Your task to perform on an android device: uninstall "The Home Depot" Image 0: 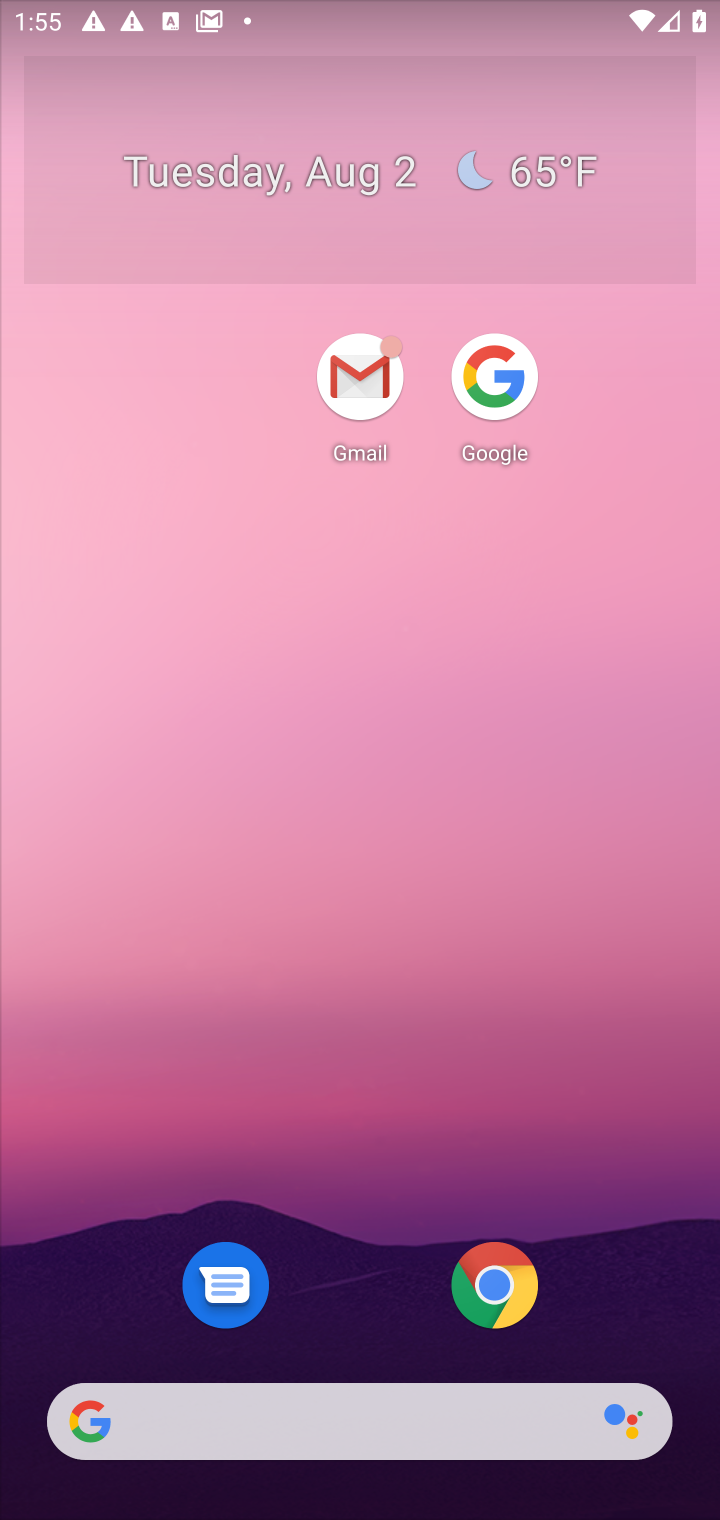
Step 0: drag from (621, 1241) to (550, 234)
Your task to perform on an android device: uninstall "The Home Depot" Image 1: 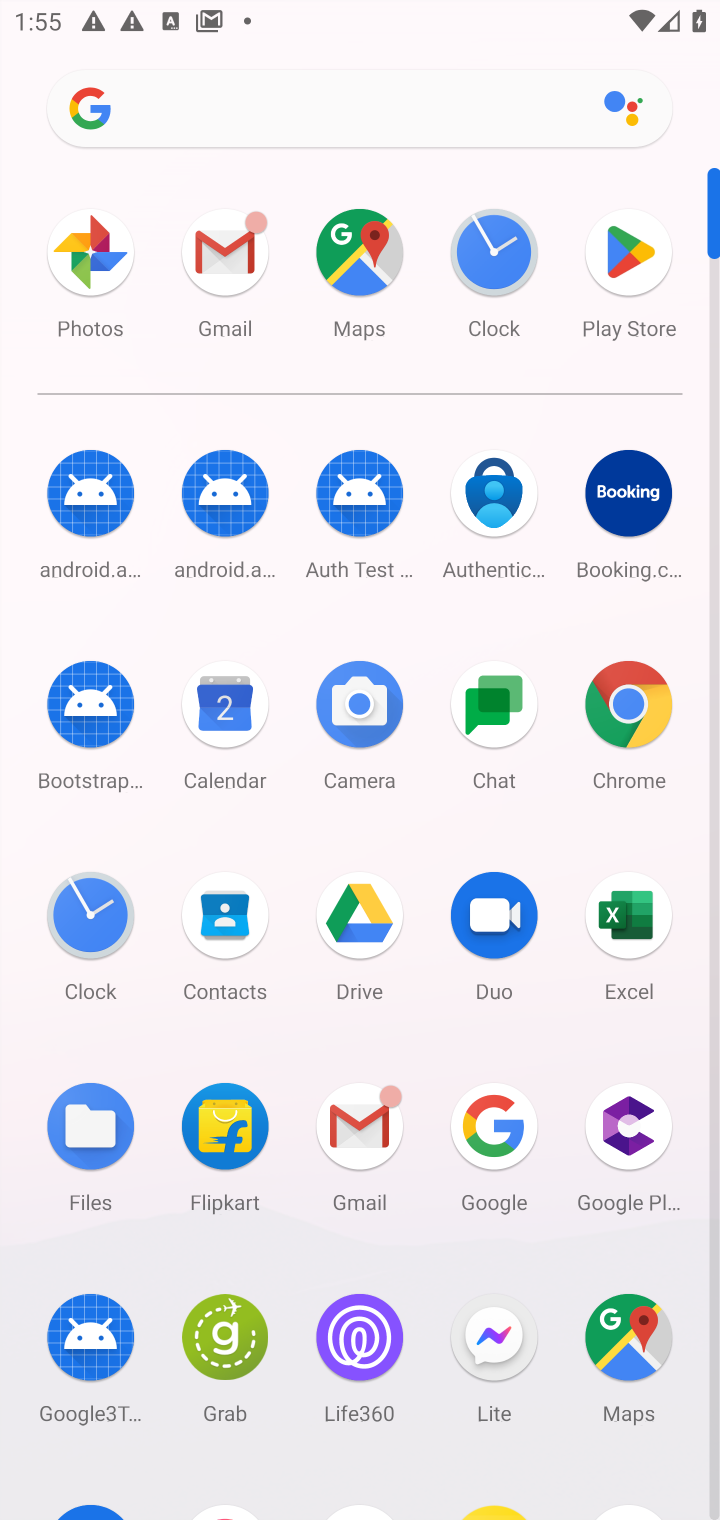
Step 1: drag from (381, 1229) to (418, 622)
Your task to perform on an android device: uninstall "The Home Depot" Image 2: 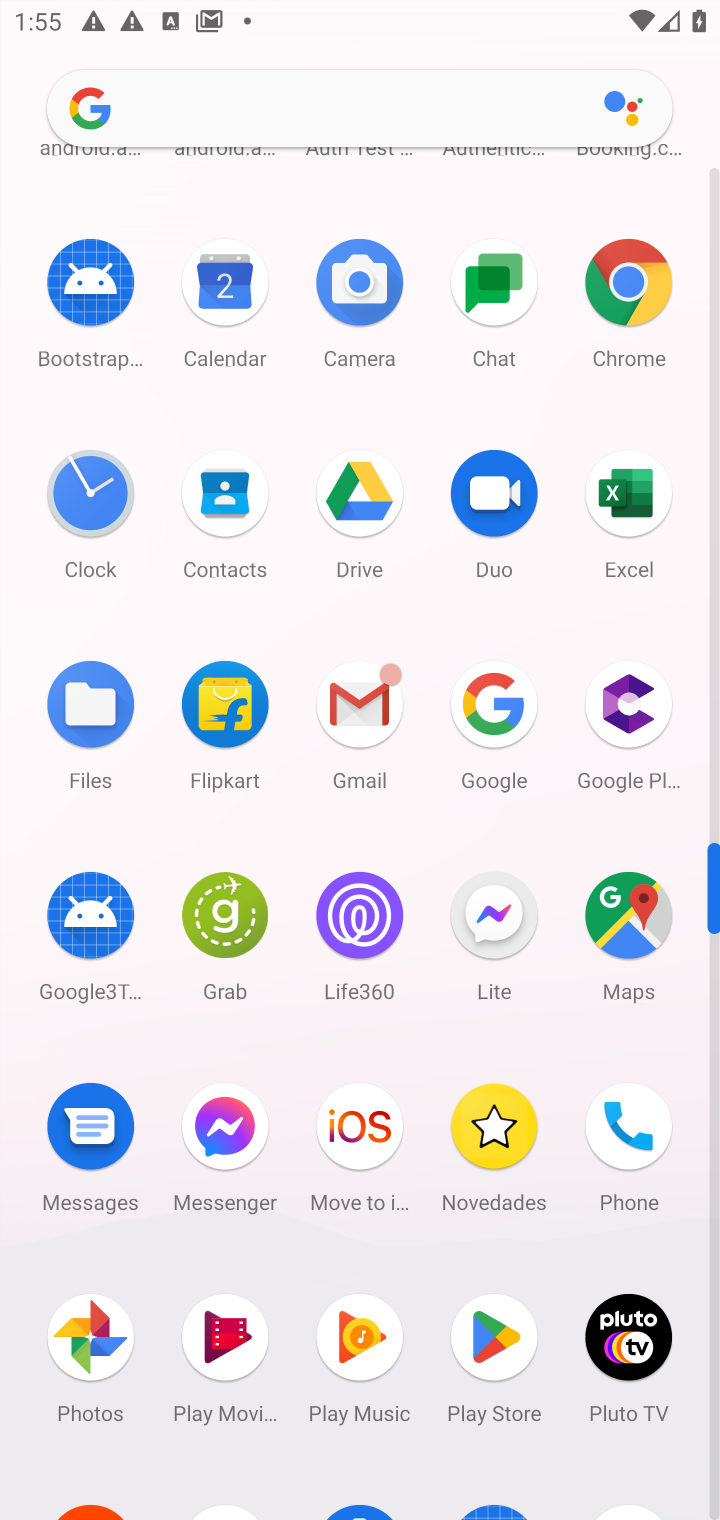
Step 2: click (470, 1327)
Your task to perform on an android device: uninstall "The Home Depot" Image 3: 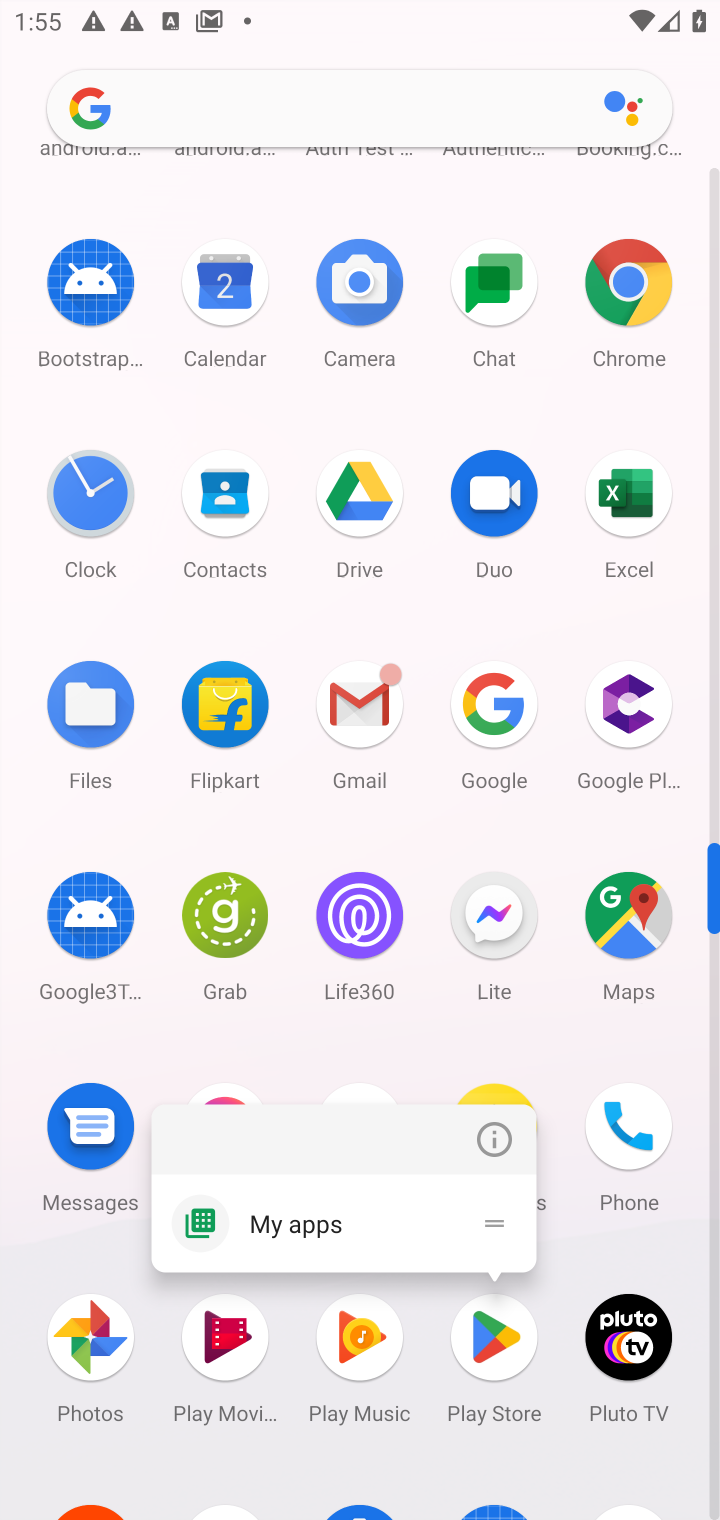
Step 3: click (497, 1344)
Your task to perform on an android device: uninstall "The Home Depot" Image 4: 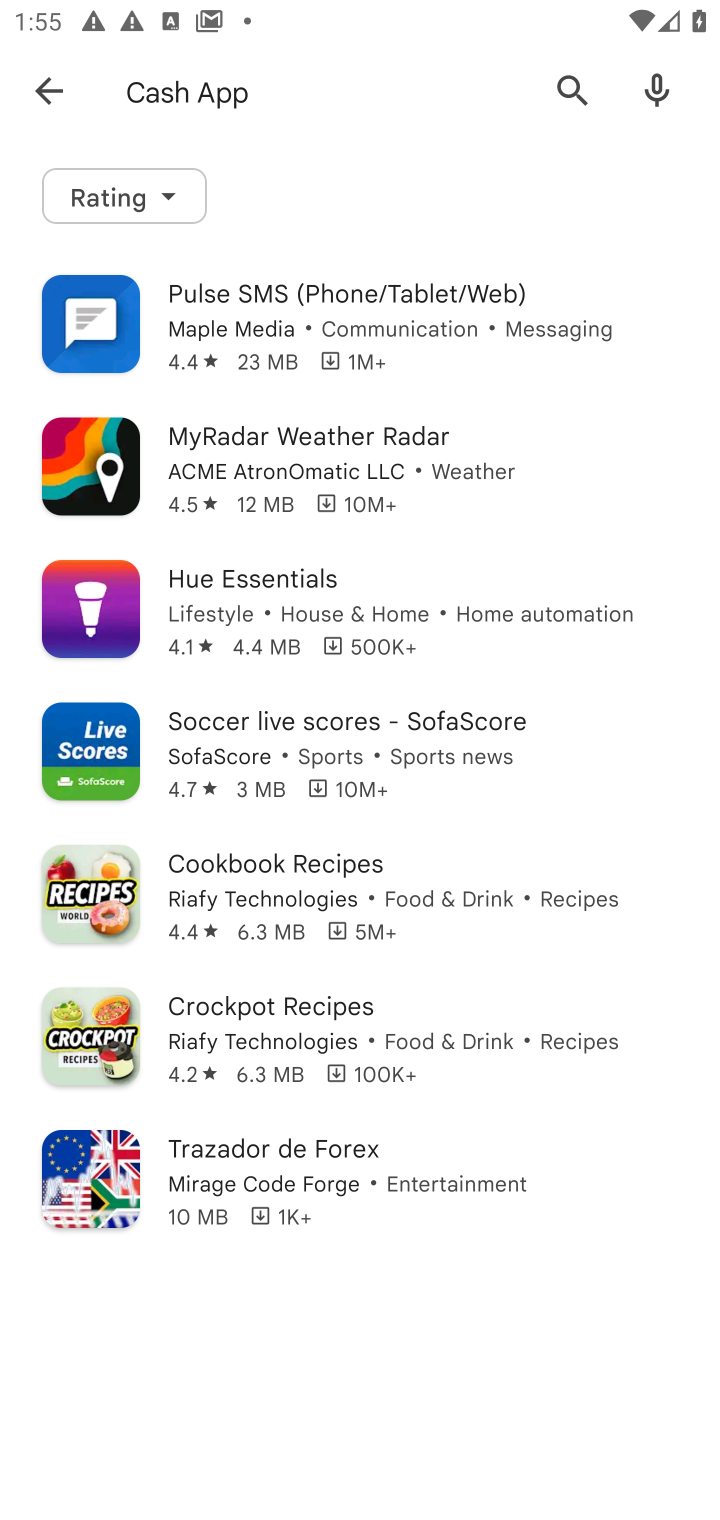
Step 4: click (345, 83)
Your task to perform on an android device: uninstall "The Home Depot" Image 5: 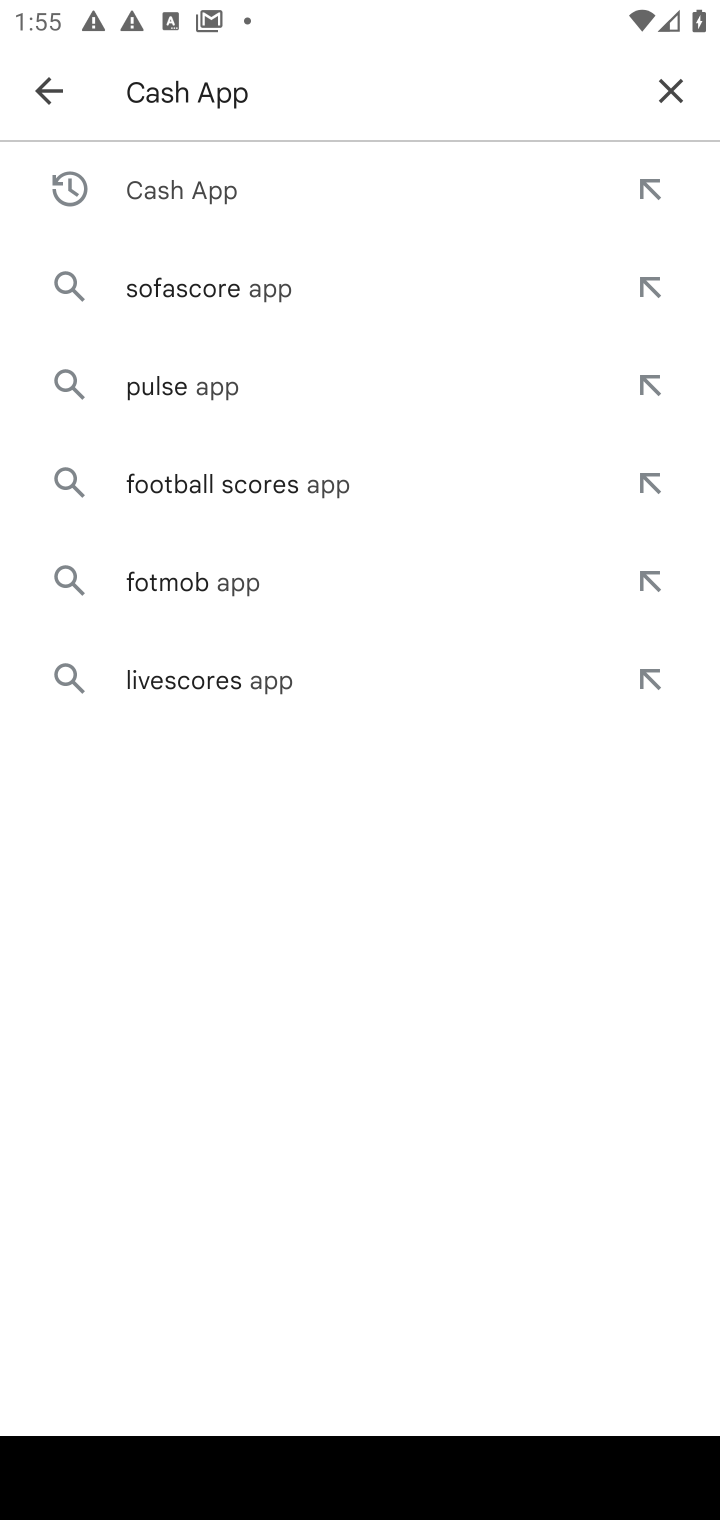
Step 5: click (651, 83)
Your task to perform on an android device: uninstall "The Home Depot" Image 6: 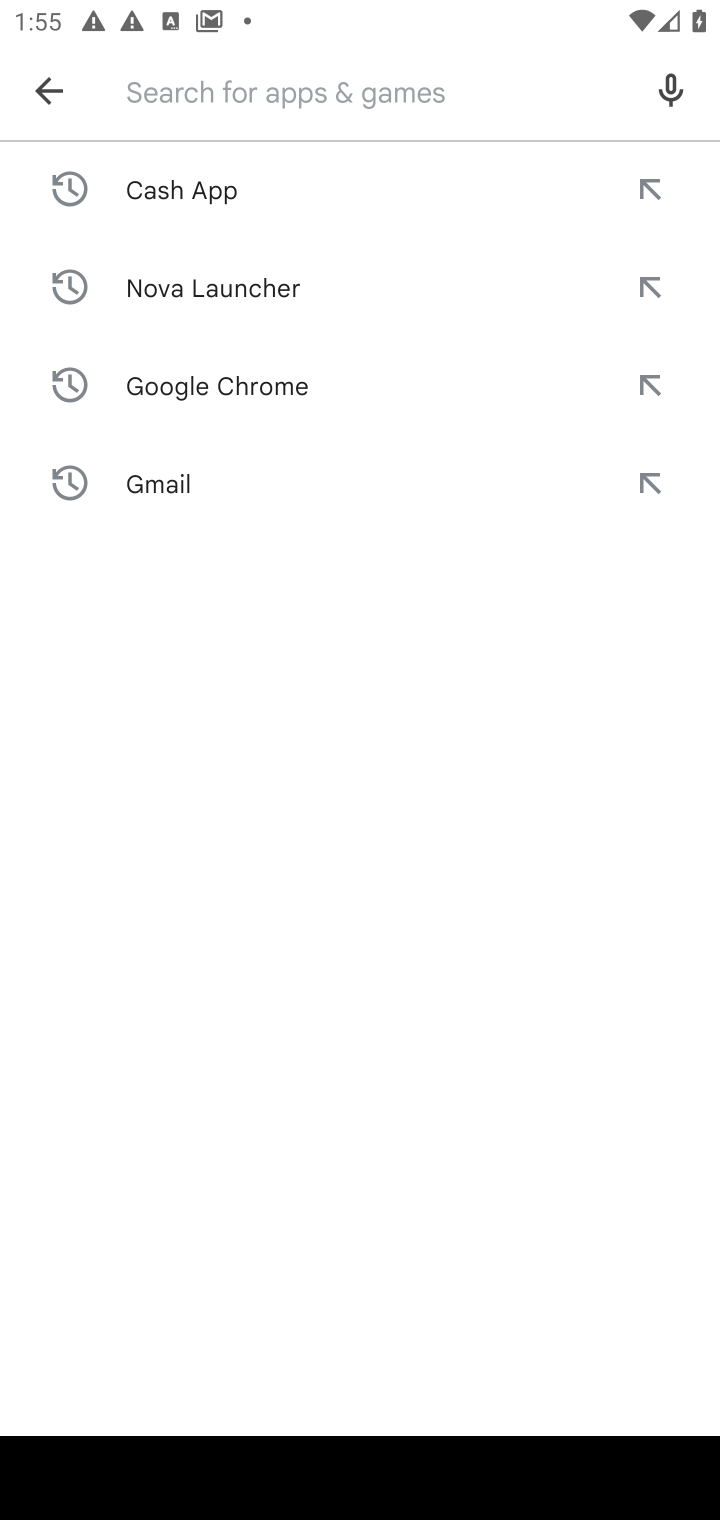
Step 6: type "The Home Depot"
Your task to perform on an android device: uninstall "The Home Depot" Image 7: 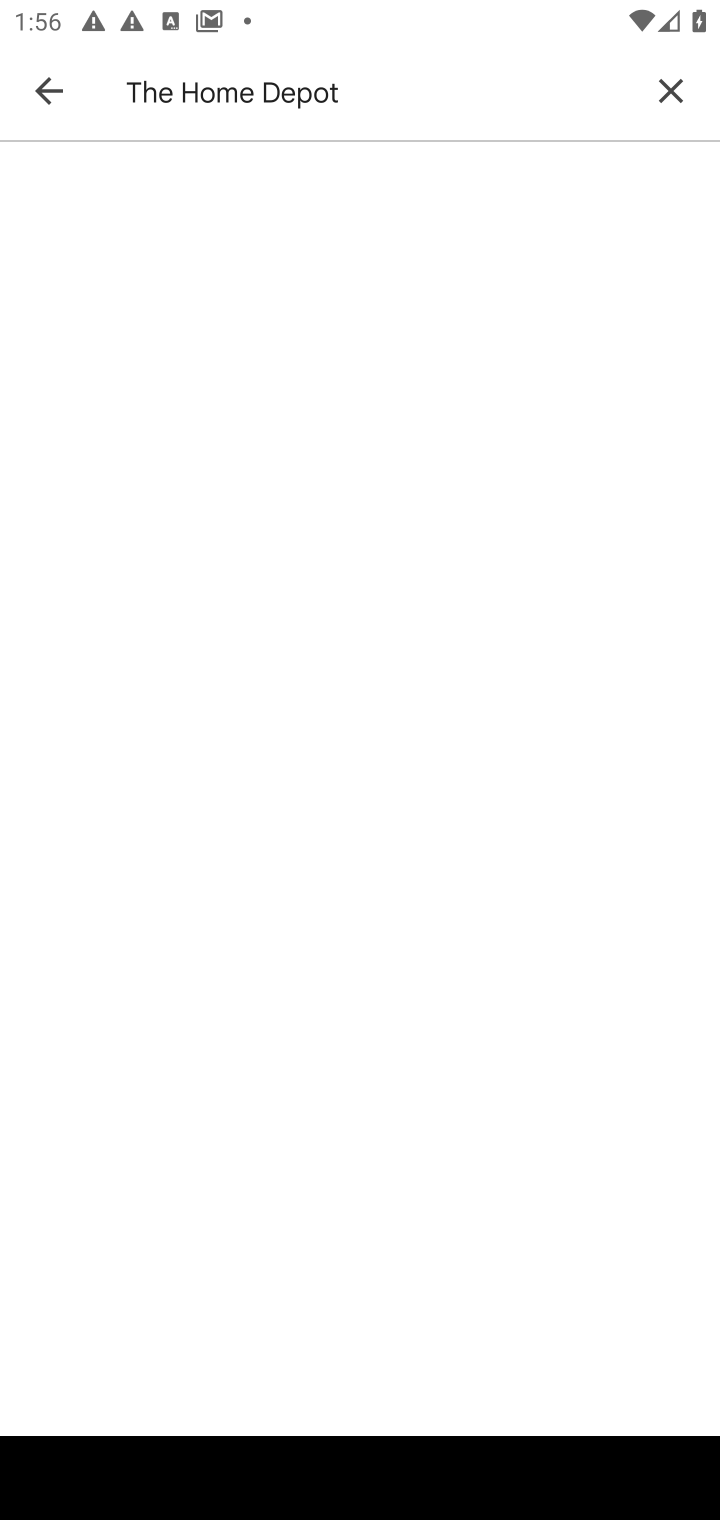
Step 7: press enter
Your task to perform on an android device: uninstall "The Home Depot" Image 8: 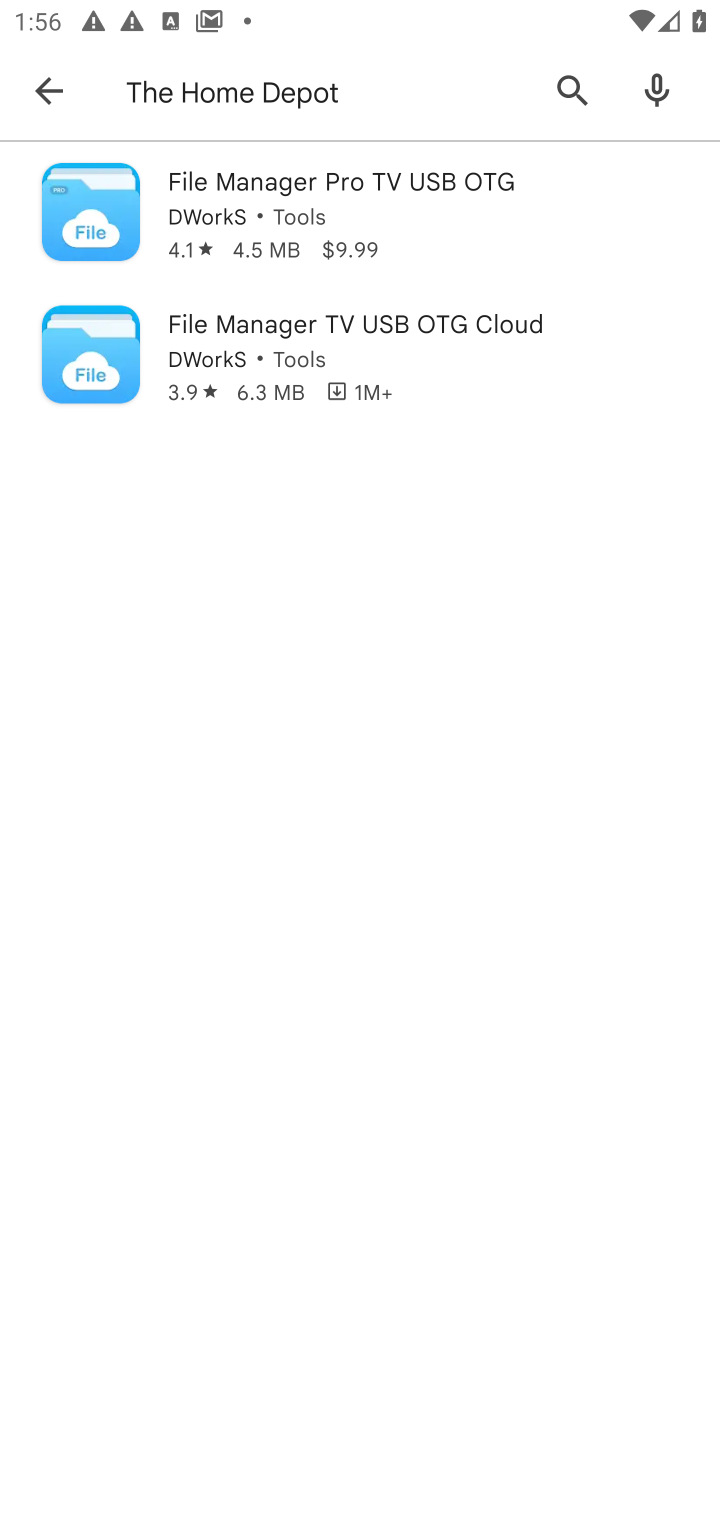
Step 8: task complete